Your task to perform on an android device: change alarm snooze length Image 0: 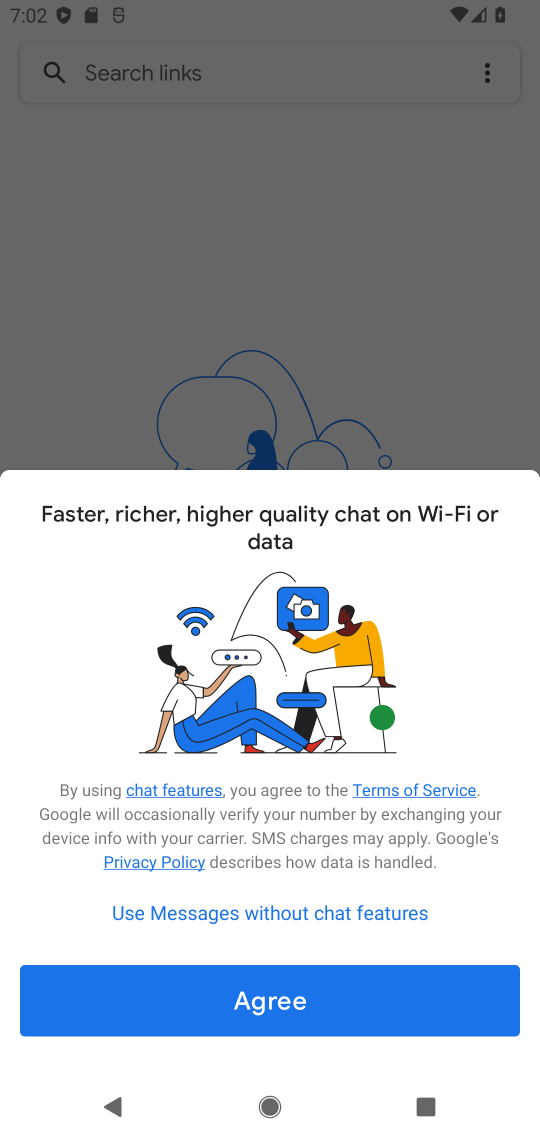
Step 0: press home button
Your task to perform on an android device: change alarm snooze length Image 1: 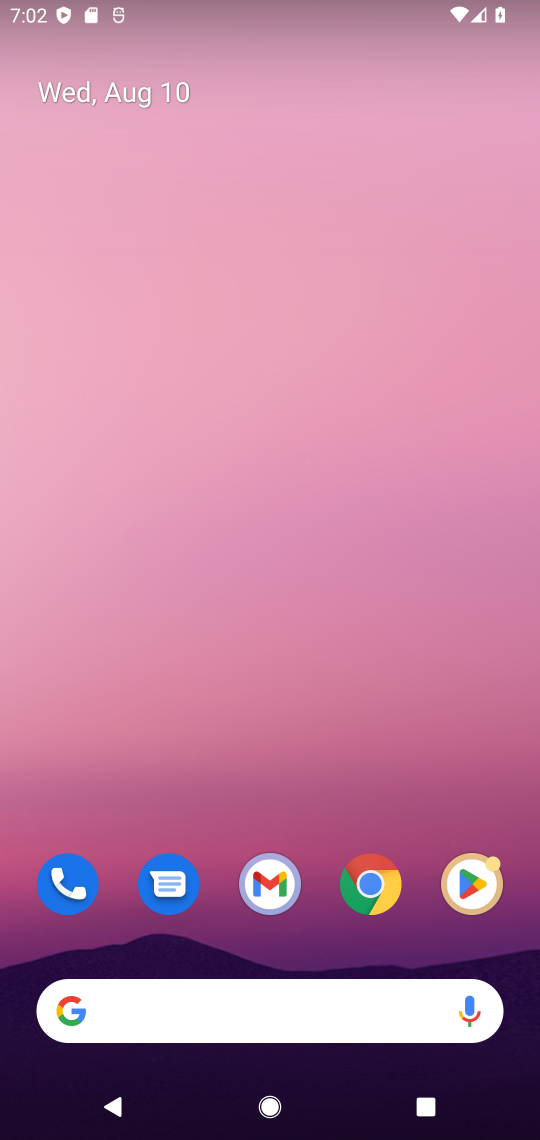
Step 1: drag from (329, 943) to (295, 225)
Your task to perform on an android device: change alarm snooze length Image 2: 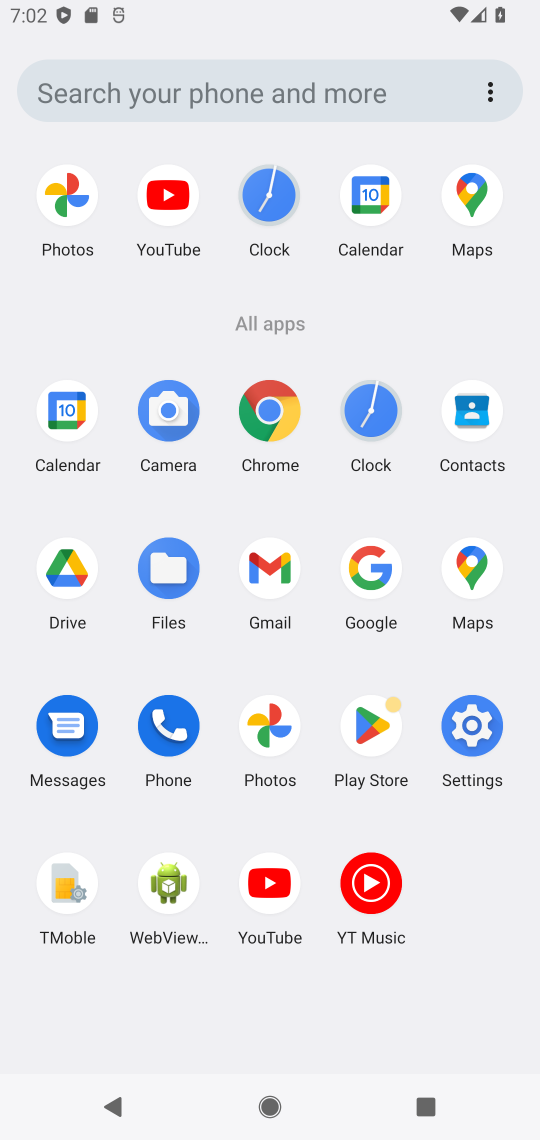
Step 2: click (268, 193)
Your task to perform on an android device: change alarm snooze length Image 3: 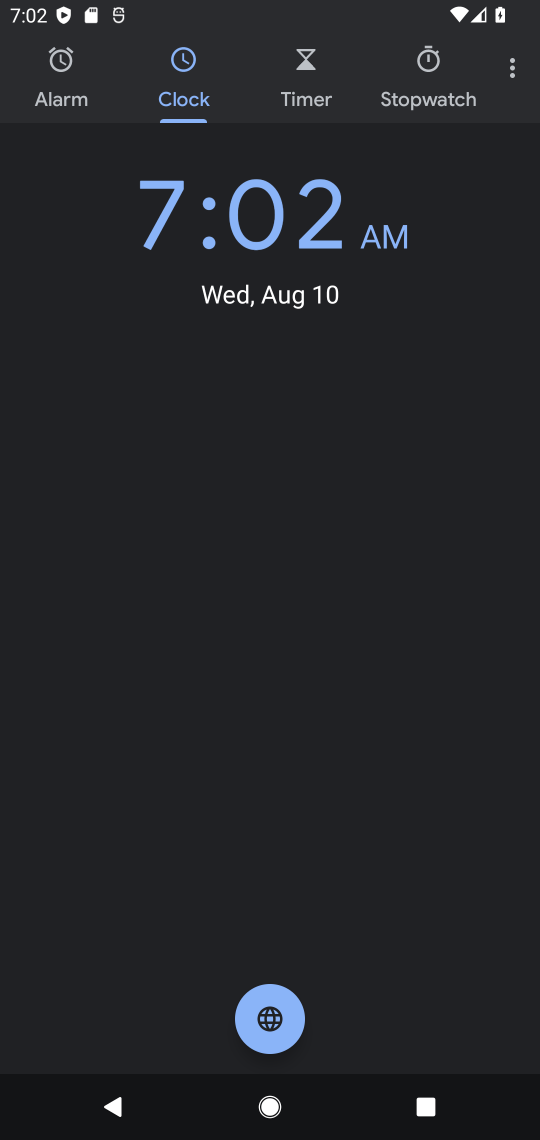
Step 3: click (503, 73)
Your task to perform on an android device: change alarm snooze length Image 4: 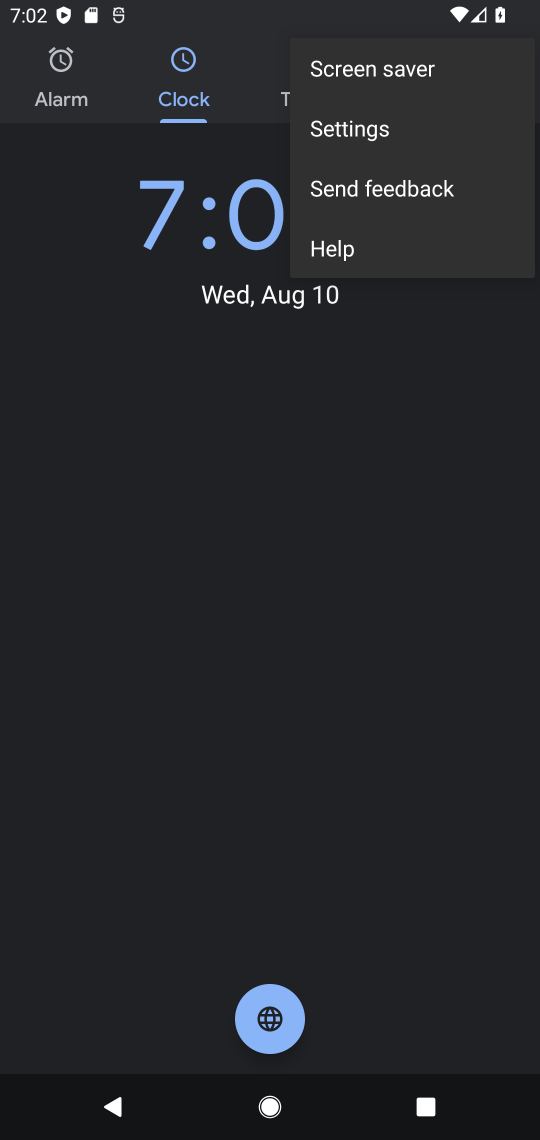
Step 4: click (365, 132)
Your task to perform on an android device: change alarm snooze length Image 5: 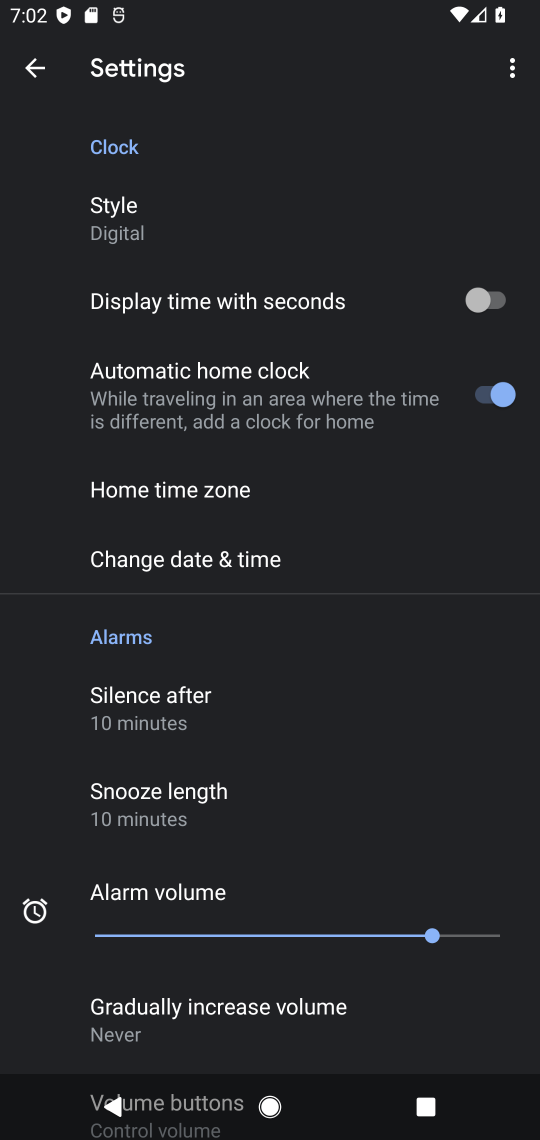
Step 5: click (188, 793)
Your task to perform on an android device: change alarm snooze length Image 6: 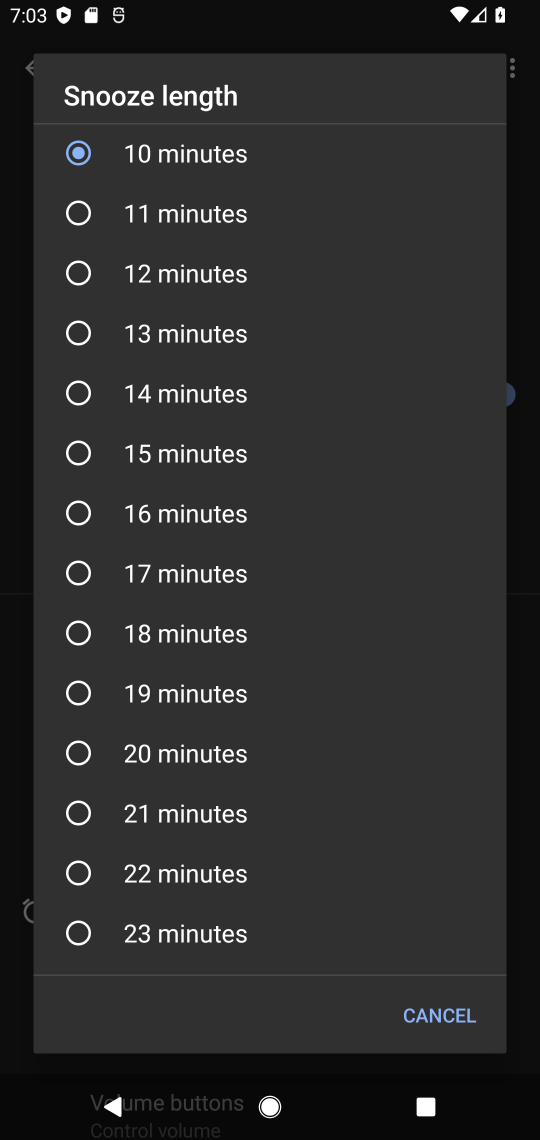
Step 6: click (73, 329)
Your task to perform on an android device: change alarm snooze length Image 7: 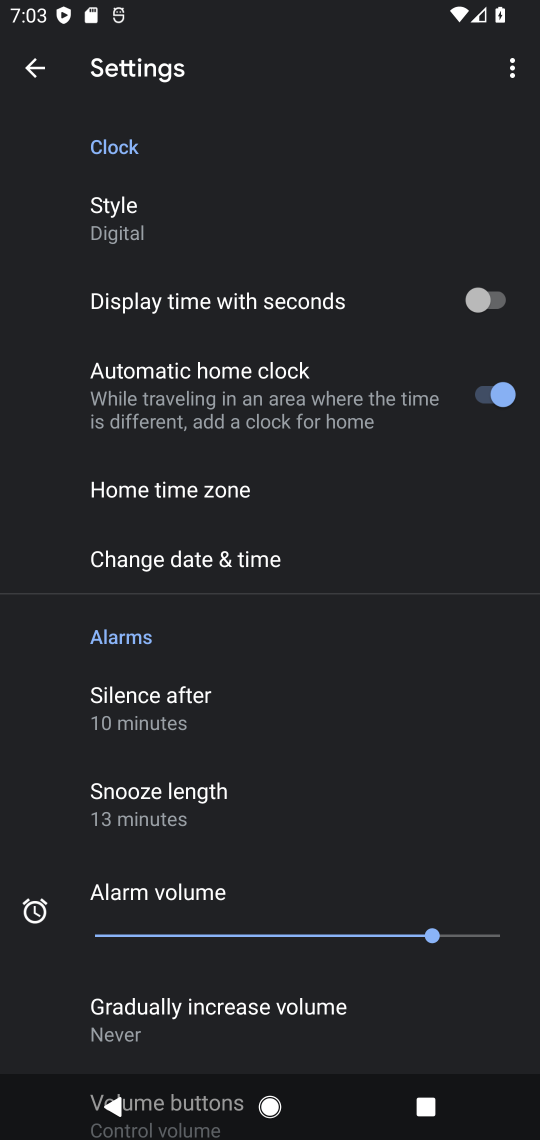
Step 7: task complete